Your task to perform on an android device: open app "Airtel Thanks" (install if not already installed) and go to login screen Image 0: 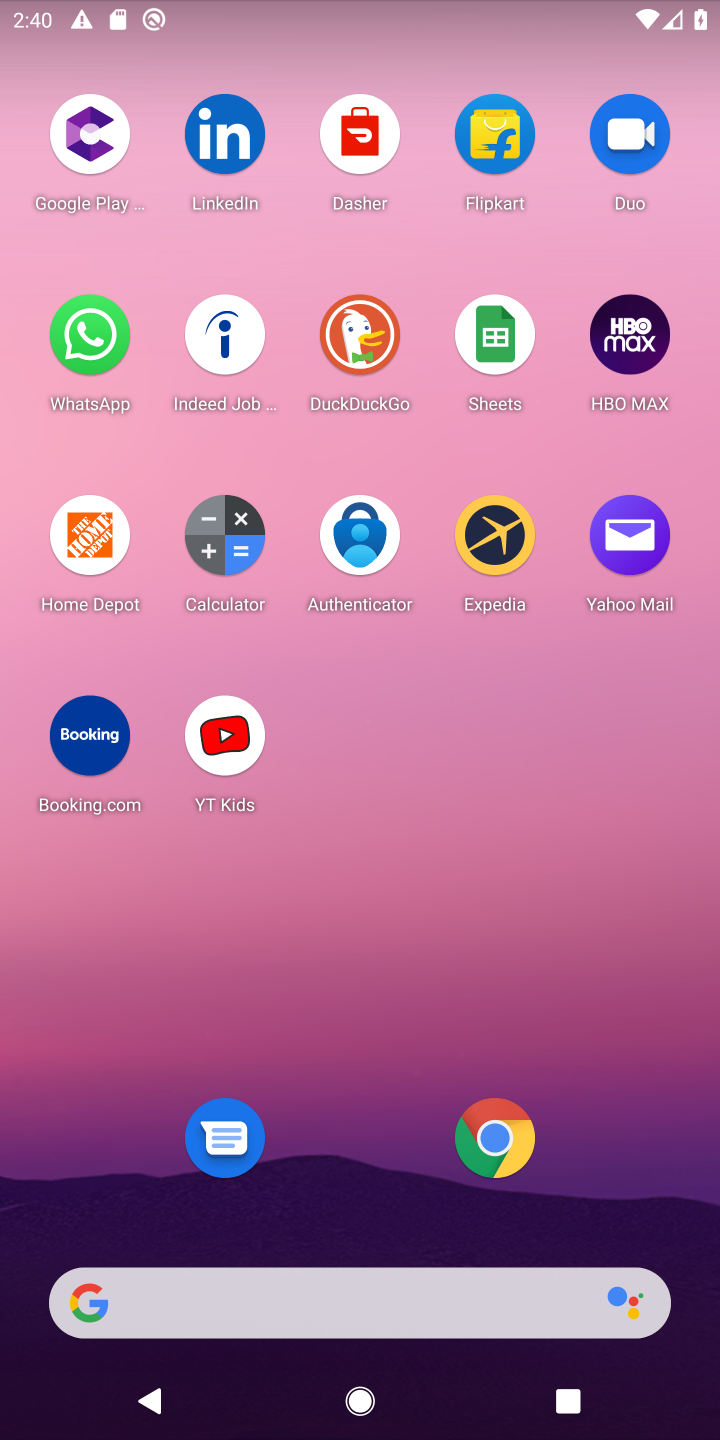
Step 0: drag from (355, 1248) to (393, 5)
Your task to perform on an android device: open app "Airtel Thanks" (install if not already installed) and go to login screen Image 1: 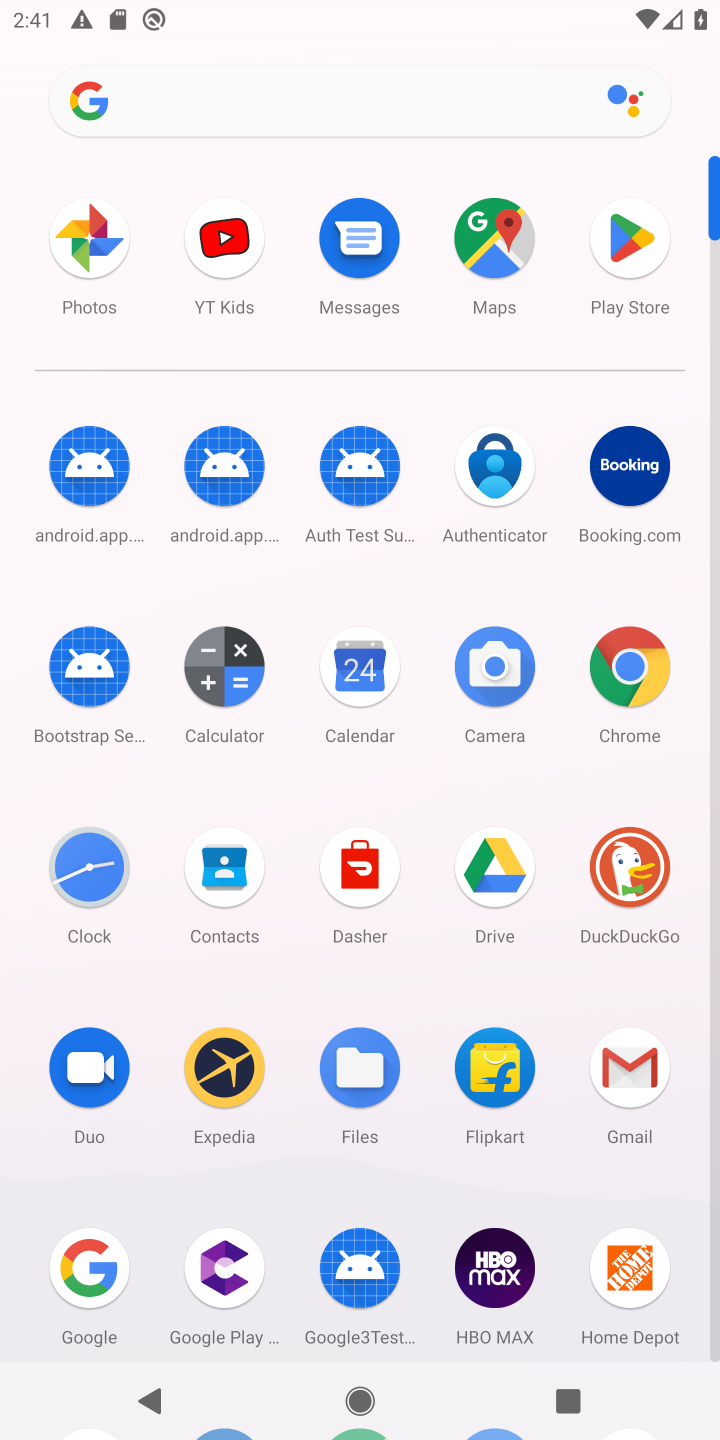
Step 1: click (631, 247)
Your task to perform on an android device: open app "Airtel Thanks" (install if not already installed) and go to login screen Image 2: 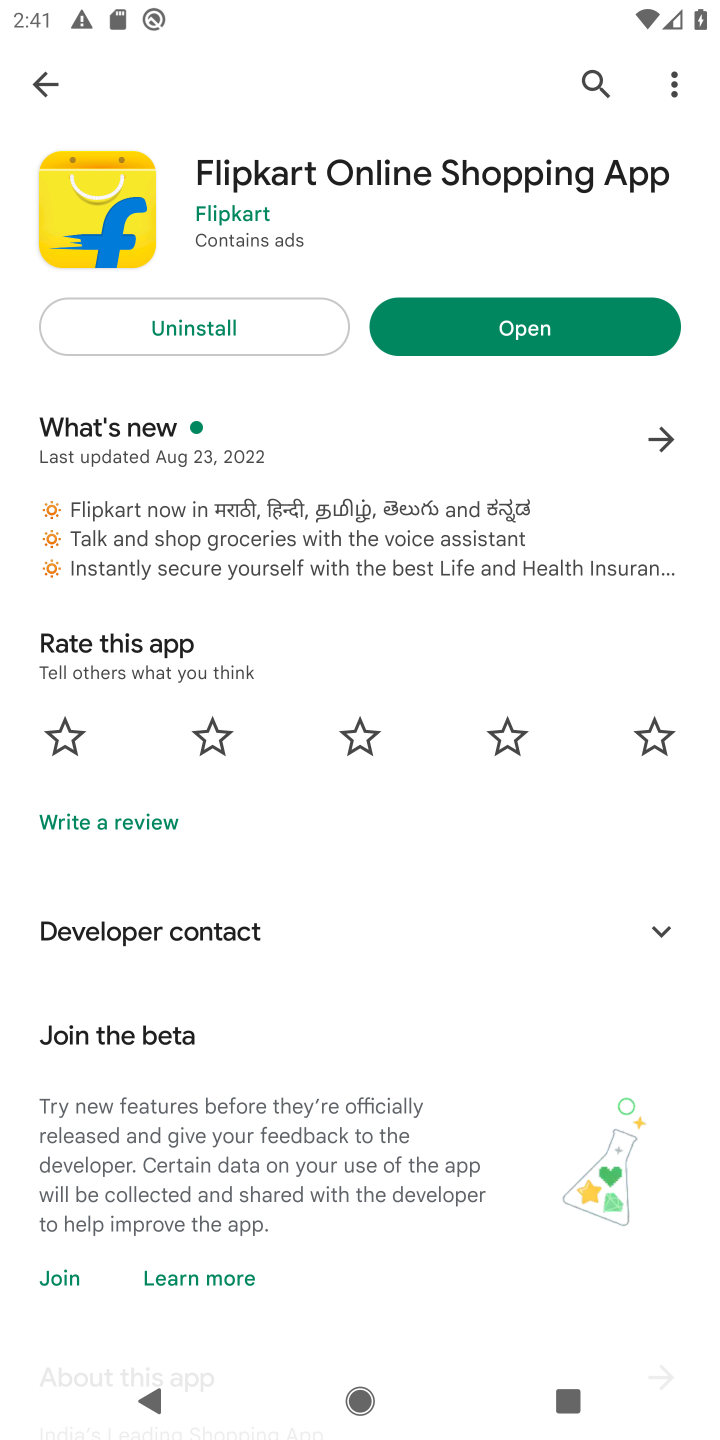
Step 2: click (593, 75)
Your task to perform on an android device: open app "Airtel Thanks" (install if not already installed) and go to login screen Image 3: 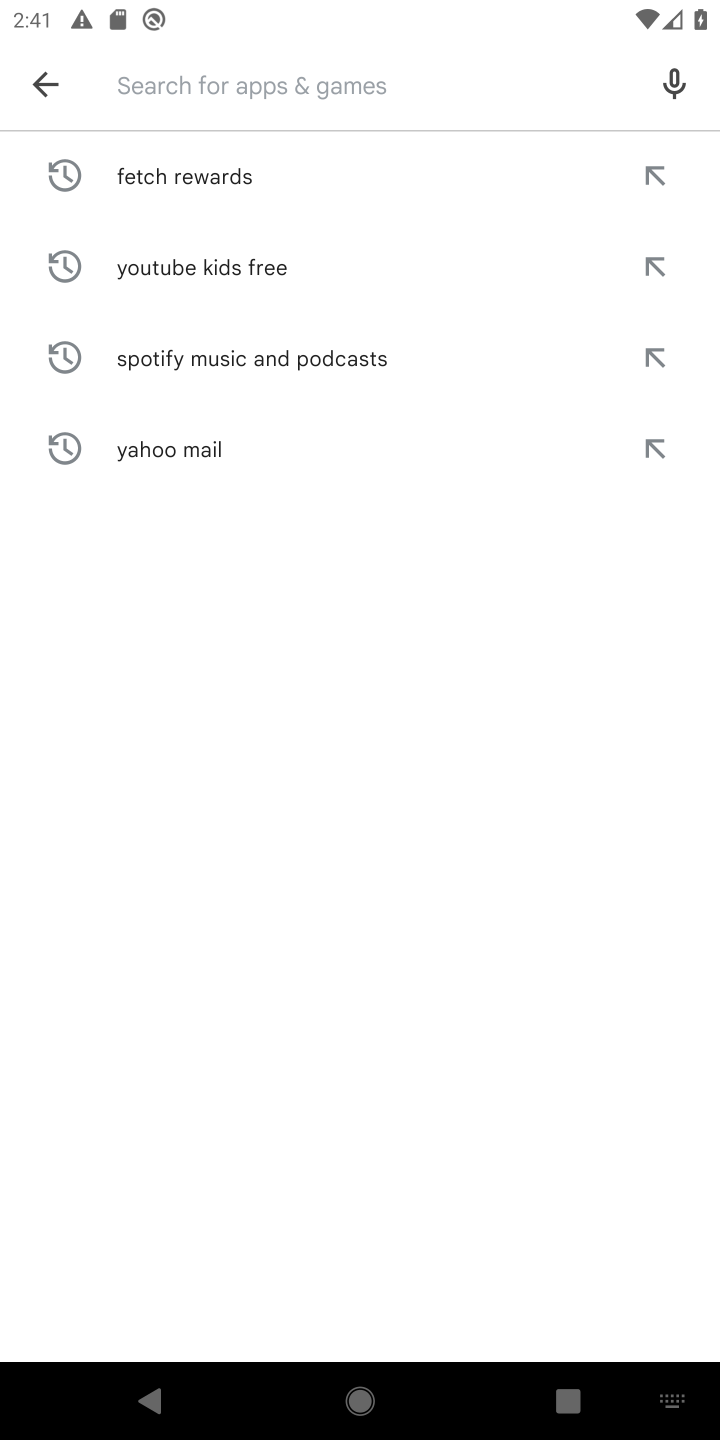
Step 3: type "Airtel Thanks"
Your task to perform on an android device: open app "Airtel Thanks" (install if not already installed) and go to login screen Image 4: 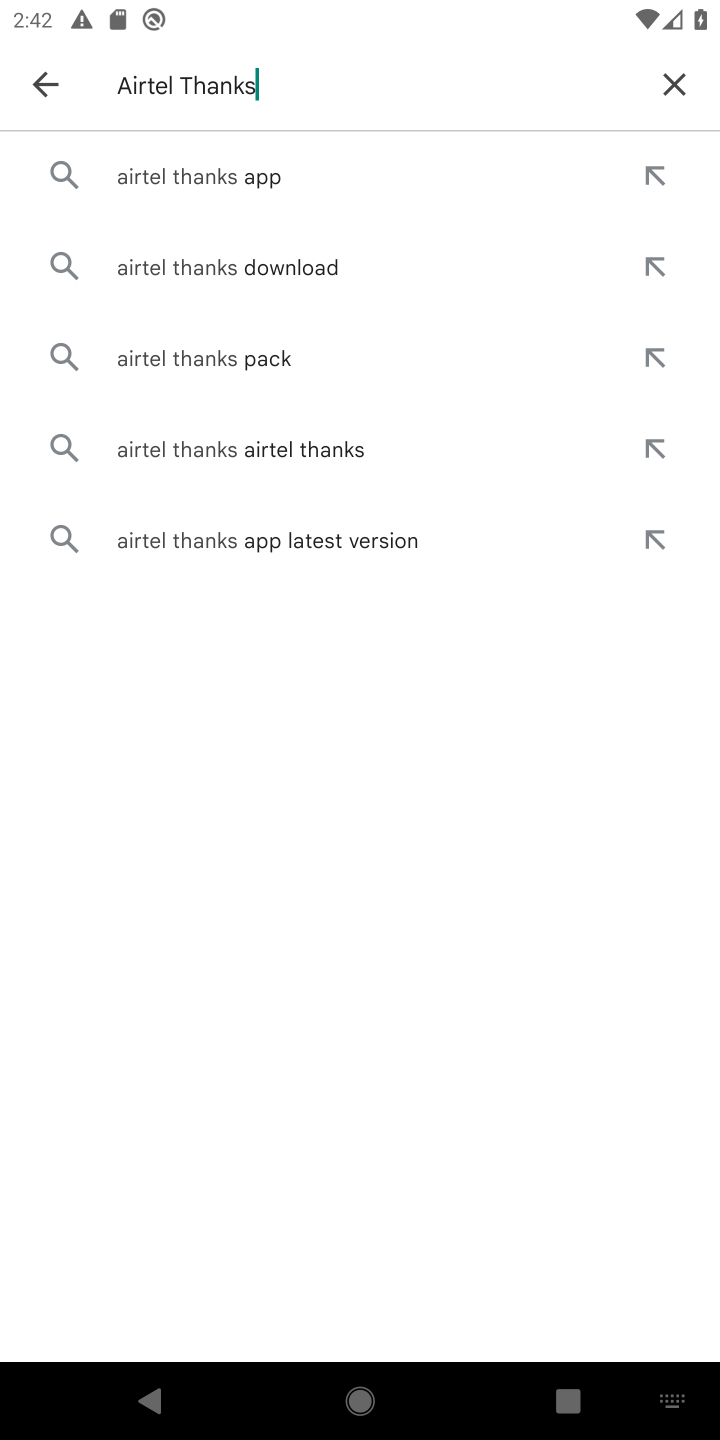
Step 4: click (199, 174)
Your task to perform on an android device: open app "Airtel Thanks" (install if not already installed) and go to login screen Image 5: 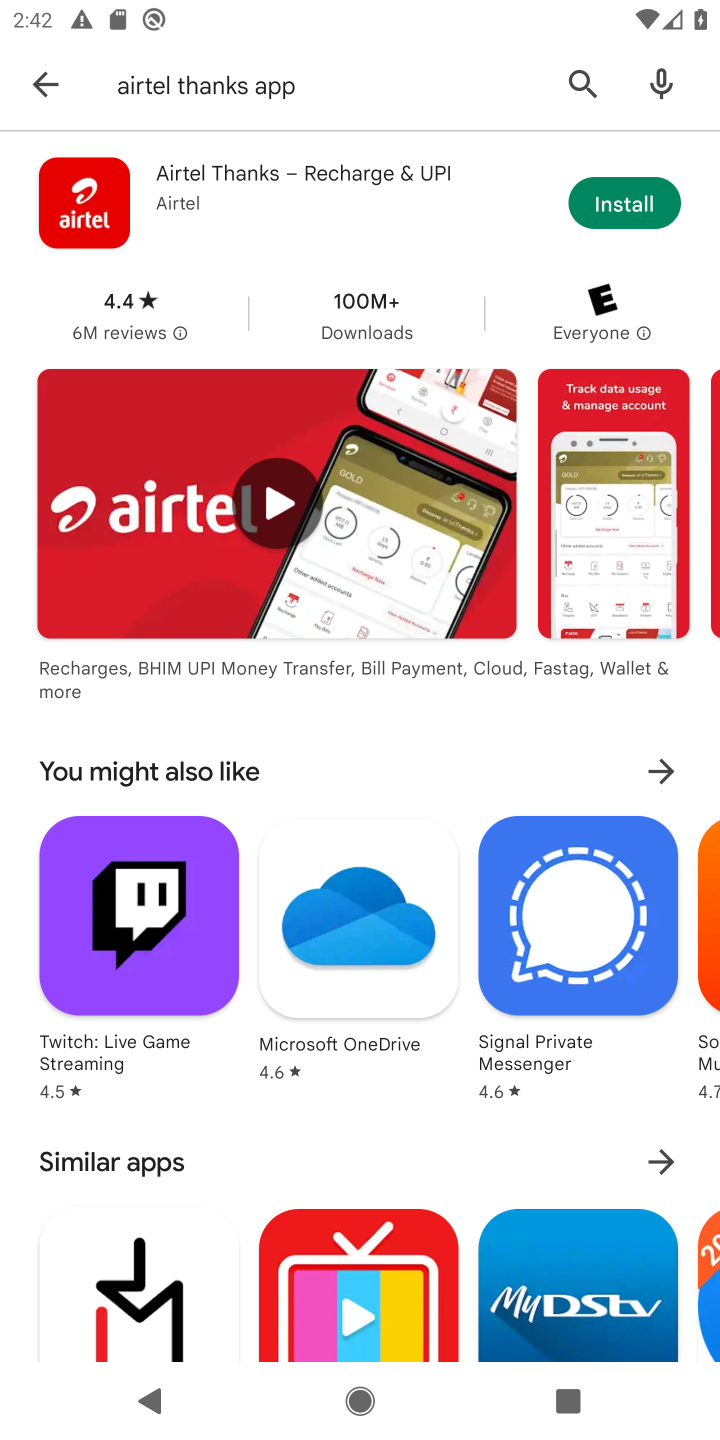
Step 5: click (658, 209)
Your task to perform on an android device: open app "Airtel Thanks" (install if not already installed) and go to login screen Image 6: 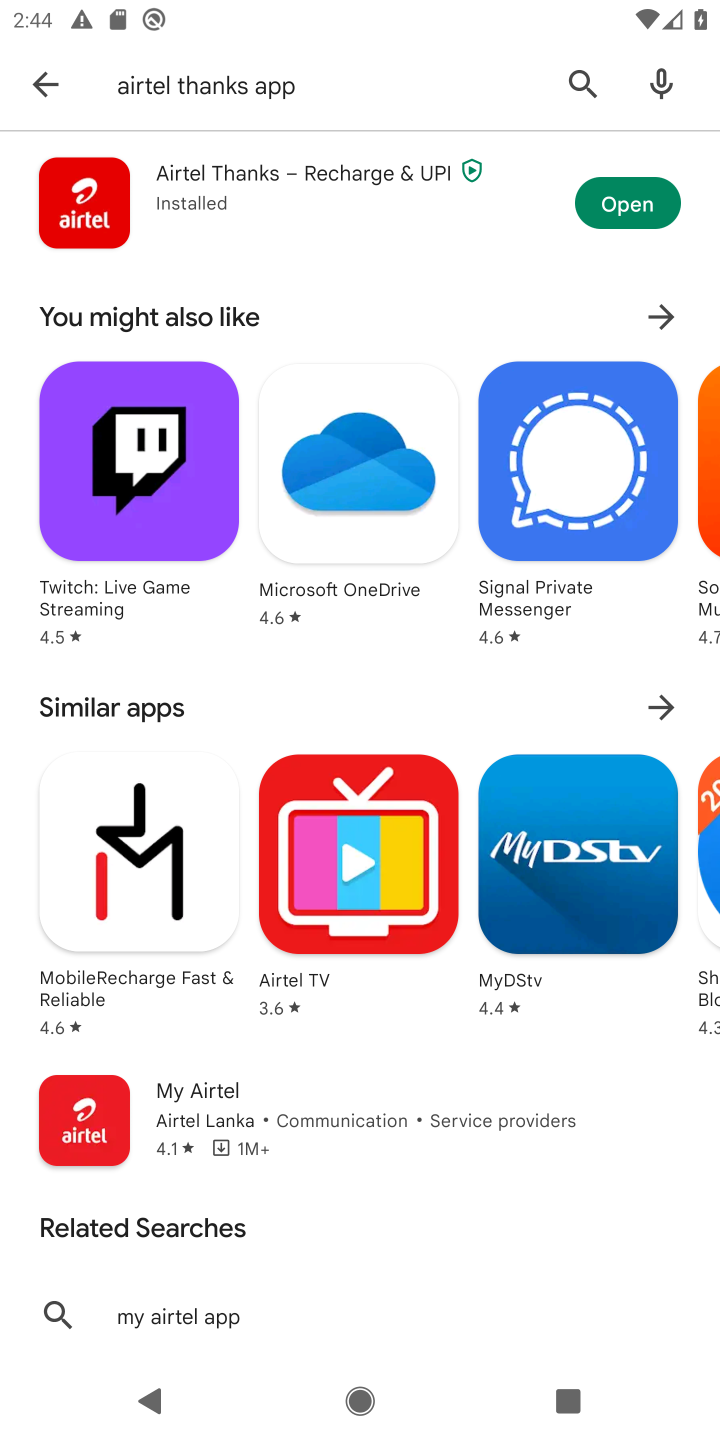
Step 6: click (658, 209)
Your task to perform on an android device: open app "Airtel Thanks" (install if not already installed) and go to login screen Image 7: 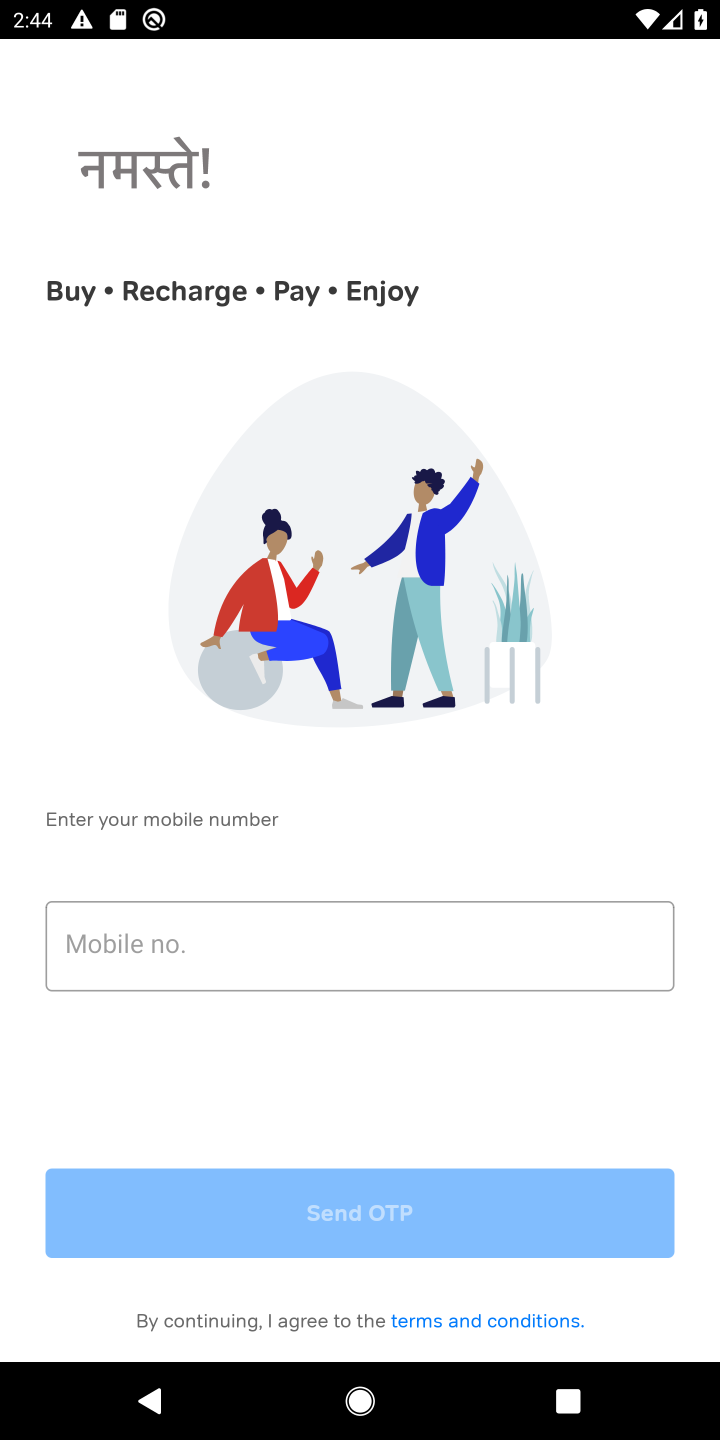
Step 7: task complete